Your task to perform on an android device: Turn off the flashlight Image 0: 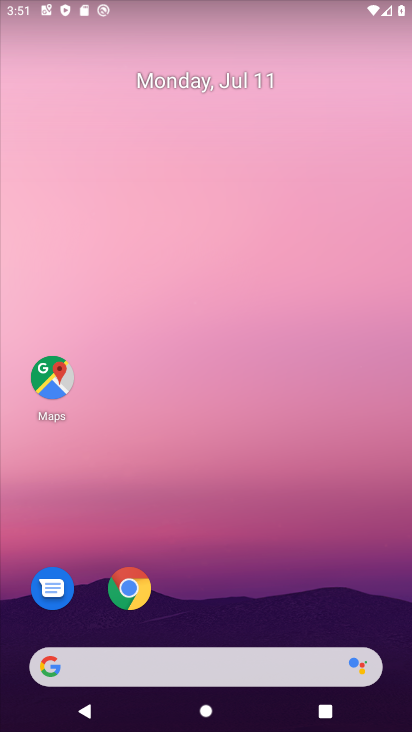
Step 0: press home button
Your task to perform on an android device: Turn off the flashlight Image 1: 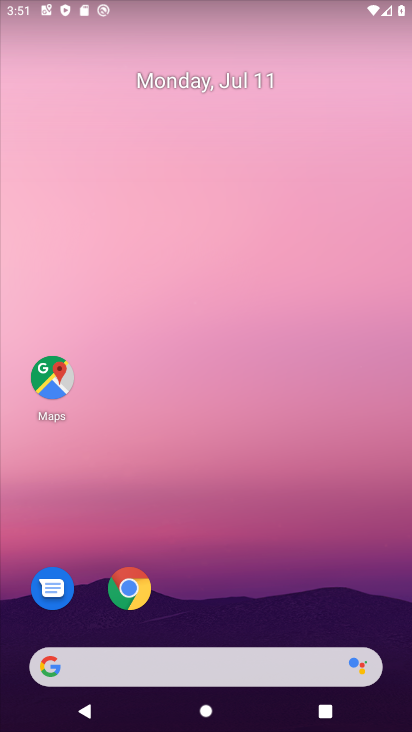
Step 1: drag from (302, 579) to (248, 73)
Your task to perform on an android device: Turn off the flashlight Image 2: 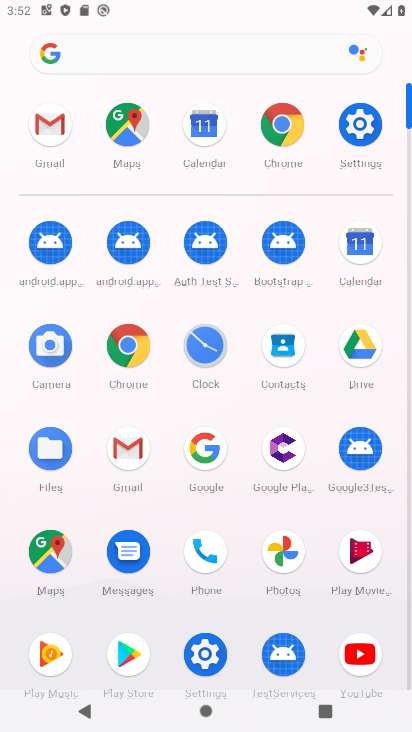
Step 2: click (200, 448)
Your task to perform on an android device: Turn off the flashlight Image 3: 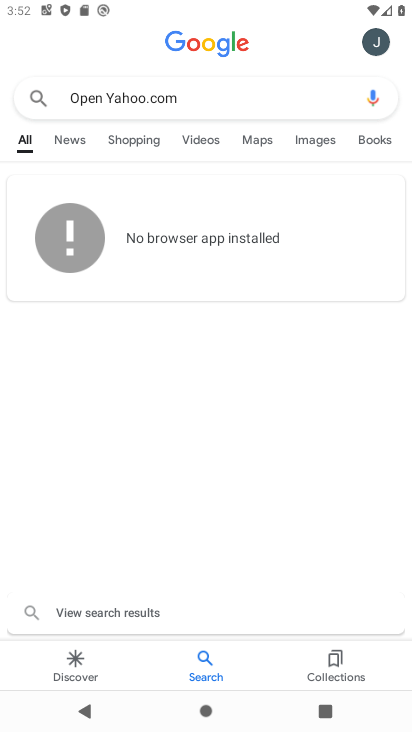
Step 3: task complete